Your task to perform on an android device: Open the calendar app, open the side menu, and click the "Day" option Image 0: 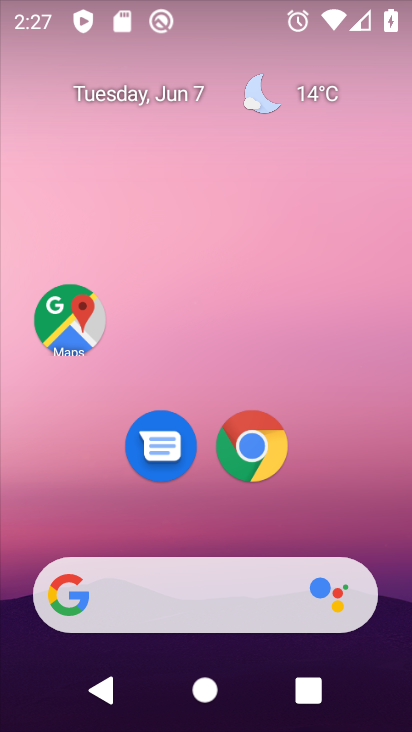
Step 0: drag from (395, 578) to (374, 142)
Your task to perform on an android device: Open the calendar app, open the side menu, and click the "Day" option Image 1: 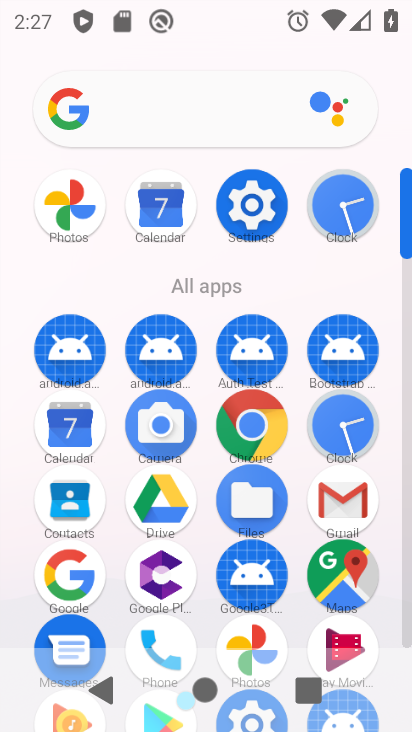
Step 1: click (70, 428)
Your task to perform on an android device: Open the calendar app, open the side menu, and click the "Day" option Image 2: 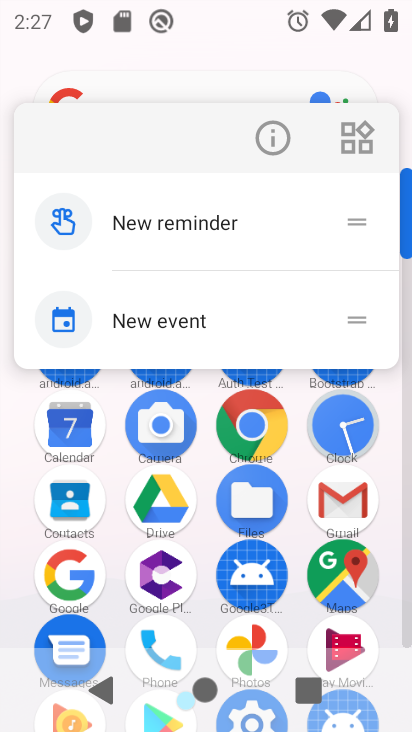
Step 2: click (71, 423)
Your task to perform on an android device: Open the calendar app, open the side menu, and click the "Day" option Image 3: 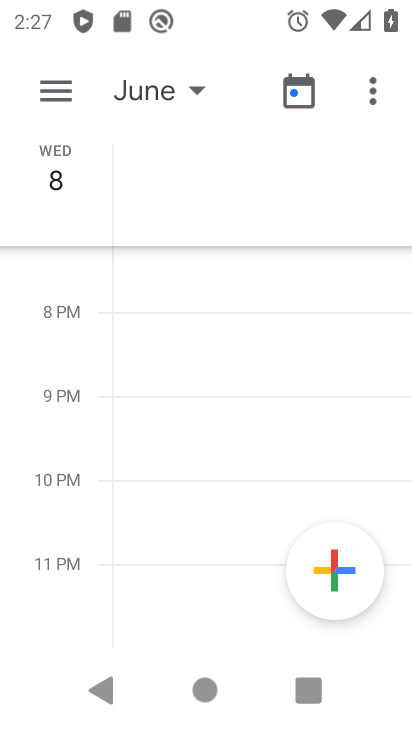
Step 3: click (61, 85)
Your task to perform on an android device: Open the calendar app, open the side menu, and click the "Day" option Image 4: 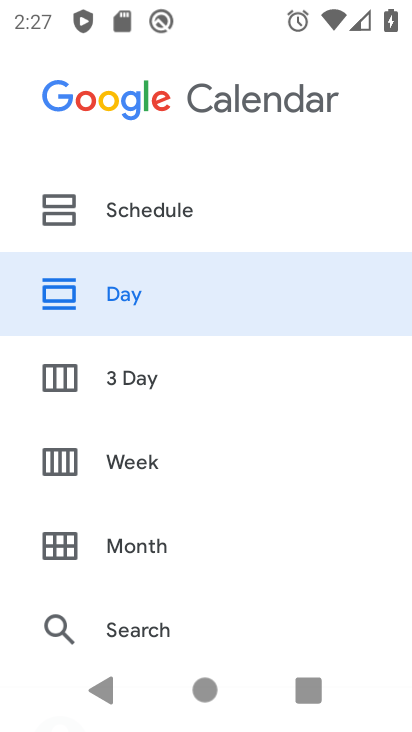
Step 4: click (134, 286)
Your task to perform on an android device: Open the calendar app, open the side menu, and click the "Day" option Image 5: 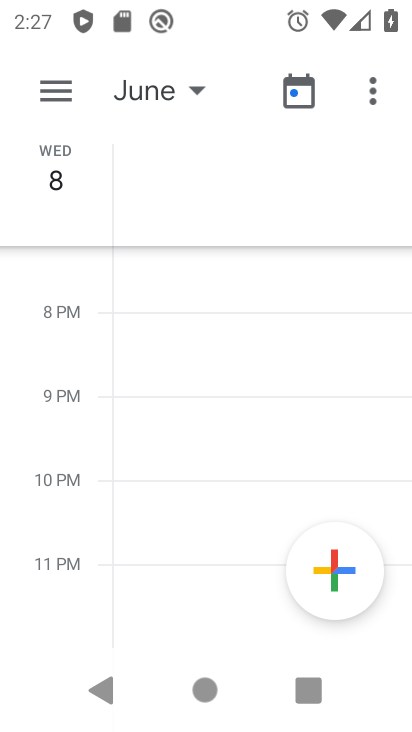
Step 5: task complete